Your task to perform on an android device: Show me productivity apps on the Play Store Image 0: 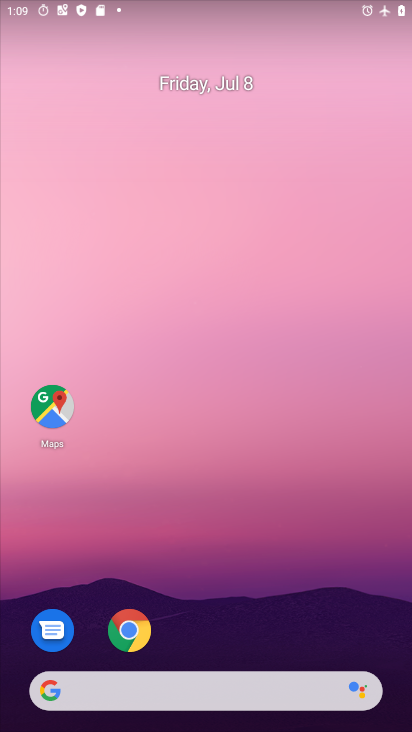
Step 0: drag from (193, 644) to (208, 155)
Your task to perform on an android device: Show me productivity apps on the Play Store Image 1: 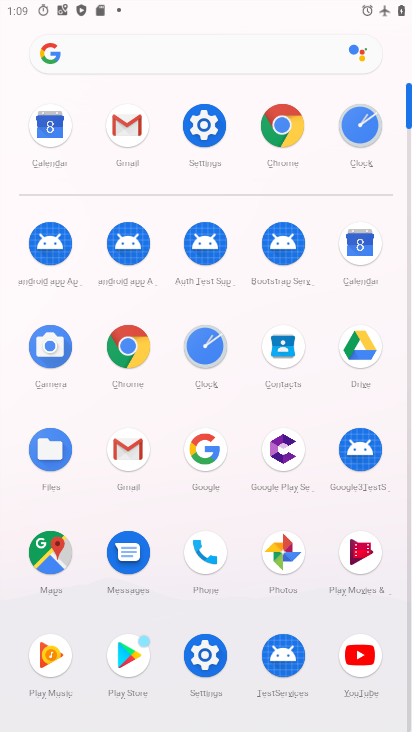
Step 1: click (121, 653)
Your task to perform on an android device: Show me productivity apps on the Play Store Image 2: 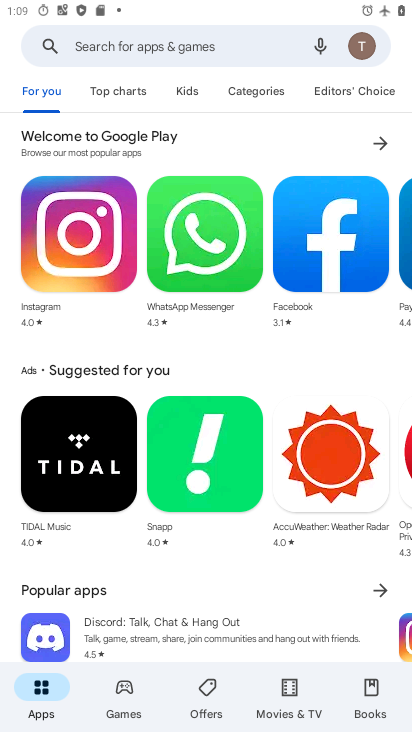
Step 2: click (251, 98)
Your task to perform on an android device: Show me productivity apps on the Play Store Image 3: 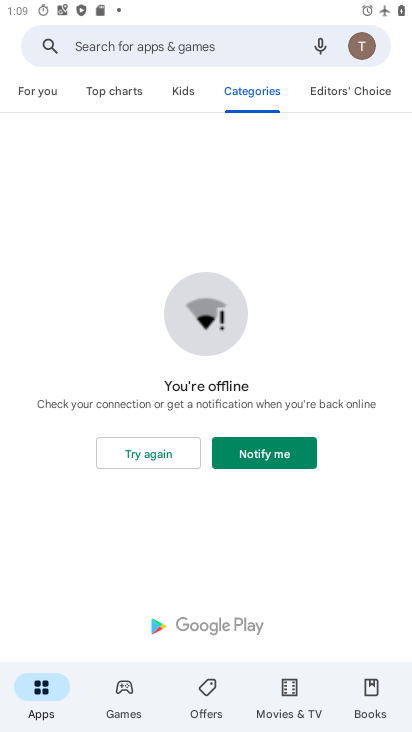
Step 3: task complete